Your task to perform on an android device: What's the weather today? Image 0: 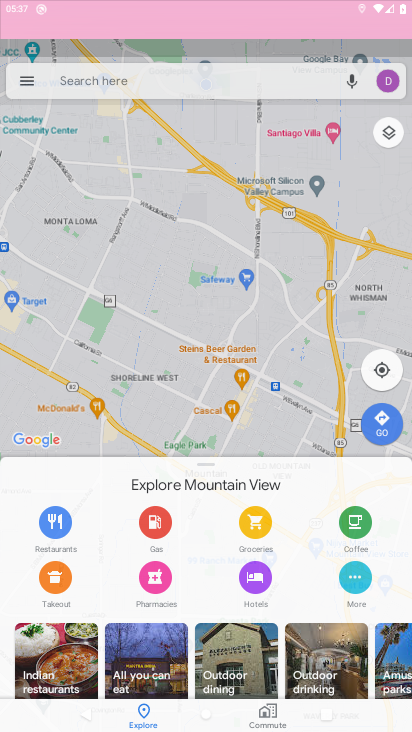
Step 0: press home button
Your task to perform on an android device: What's the weather today? Image 1: 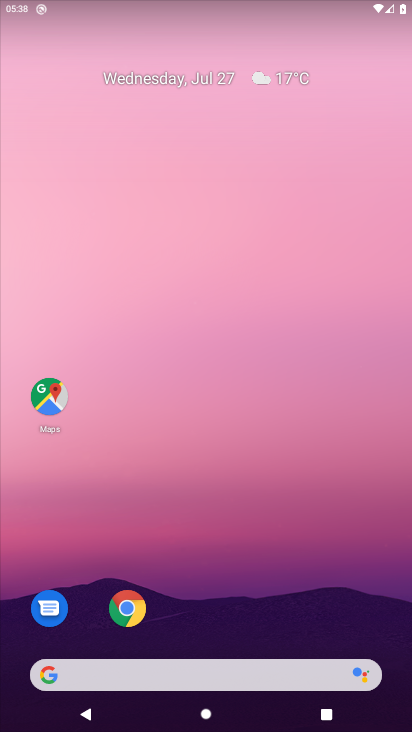
Step 1: click (53, 680)
Your task to perform on an android device: What's the weather today? Image 2: 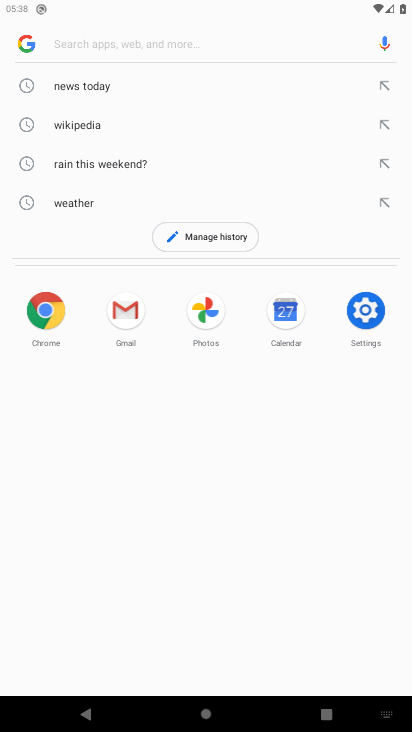
Step 2: press enter
Your task to perform on an android device: What's the weather today? Image 3: 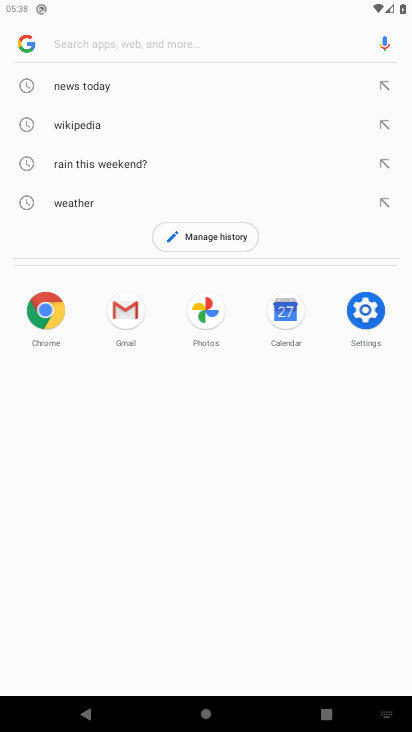
Step 3: type "weather today?"
Your task to perform on an android device: What's the weather today? Image 4: 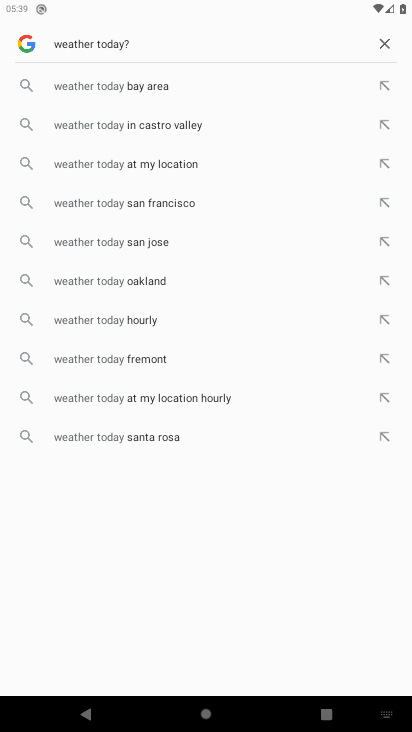
Step 4: press enter
Your task to perform on an android device: What's the weather today? Image 5: 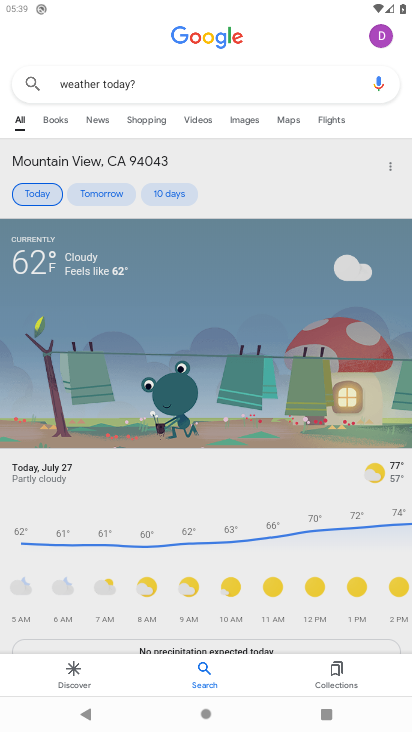
Step 5: task complete